Your task to perform on an android device: Open Reddit.com Image 0: 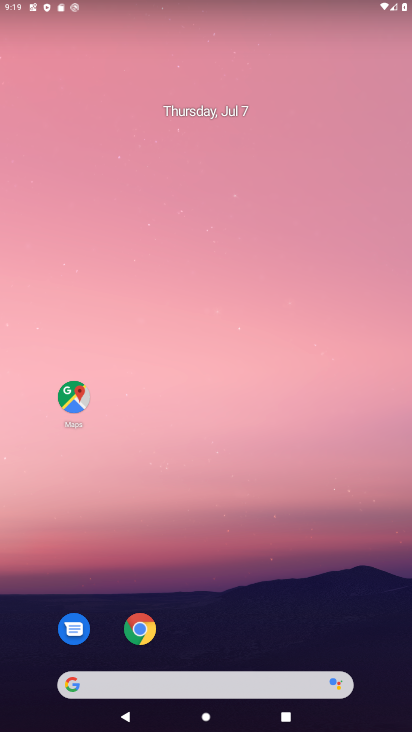
Step 0: click (172, 682)
Your task to perform on an android device: Open Reddit.com Image 1: 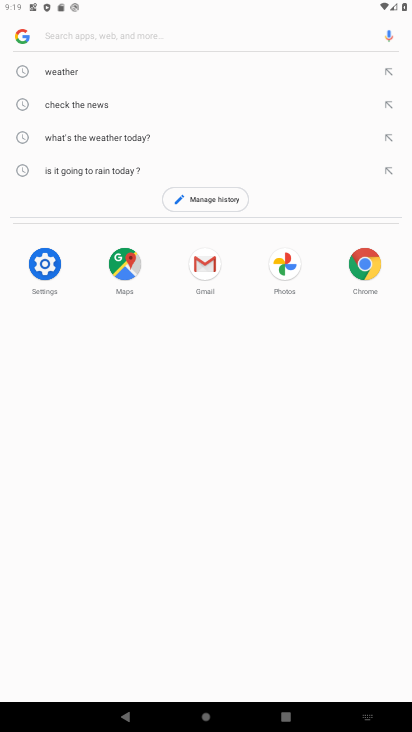
Step 1: type "reddit.com"
Your task to perform on an android device: Open Reddit.com Image 2: 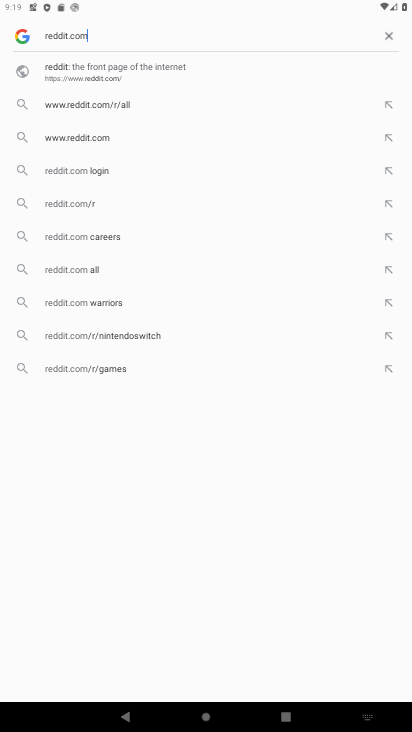
Step 2: click (68, 77)
Your task to perform on an android device: Open Reddit.com Image 3: 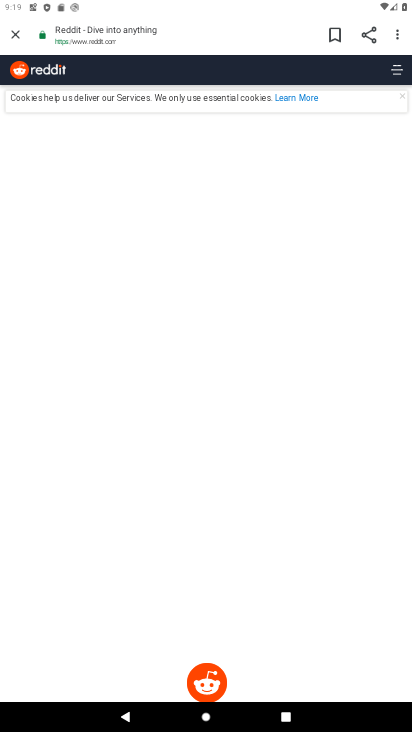
Step 3: task complete